Your task to perform on an android device: Open the phone app and click the voicemail tab. Image 0: 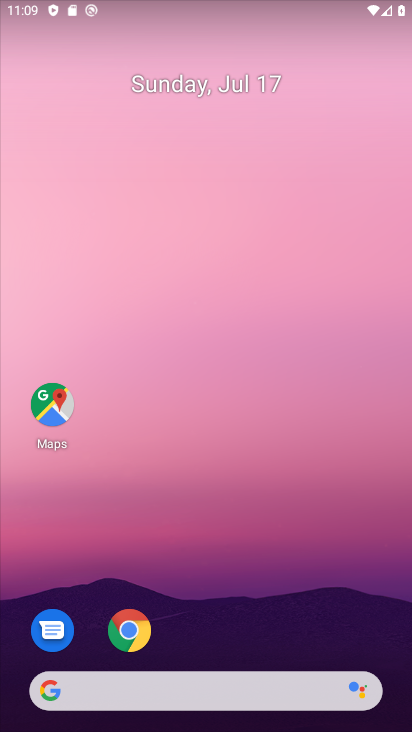
Step 0: drag from (220, 638) to (257, 104)
Your task to perform on an android device: Open the phone app and click the voicemail tab. Image 1: 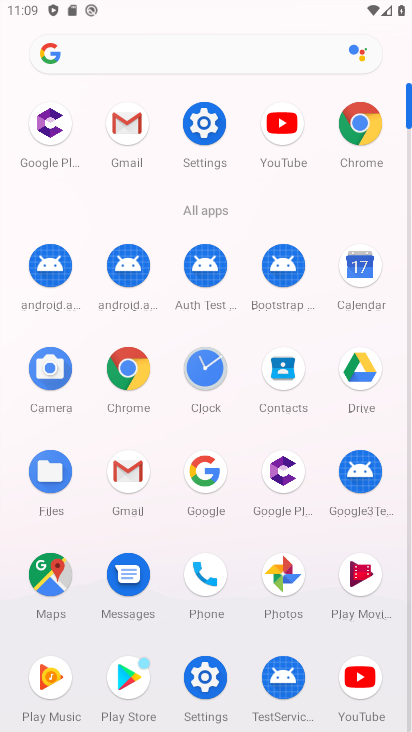
Step 1: click (208, 589)
Your task to perform on an android device: Open the phone app and click the voicemail tab. Image 2: 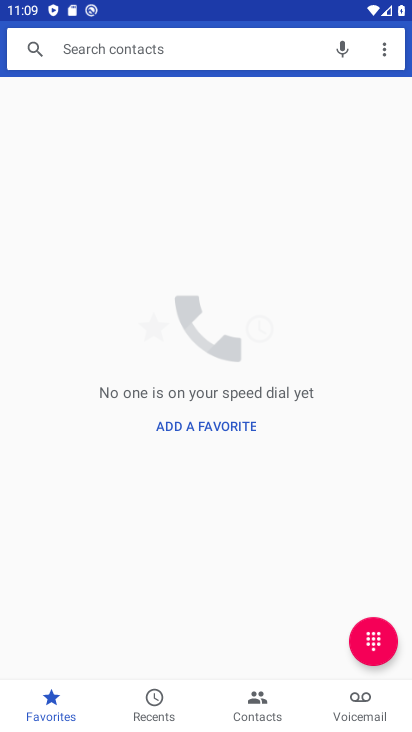
Step 2: click (368, 708)
Your task to perform on an android device: Open the phone app and click the voicemail tab. Image 3: 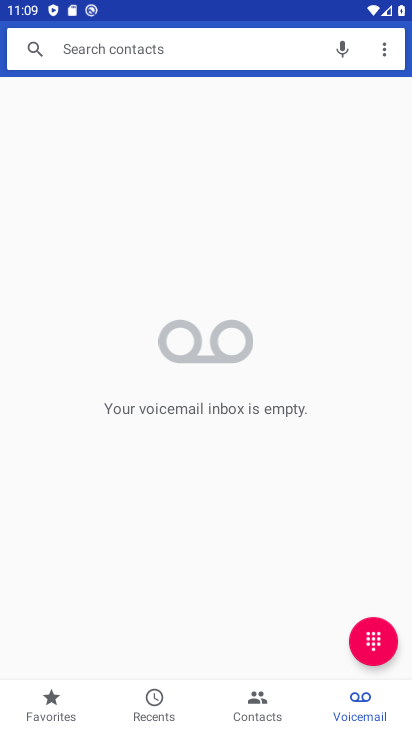
Step 3: task complete